Your task to perform on an android device: Open the map Image 0: 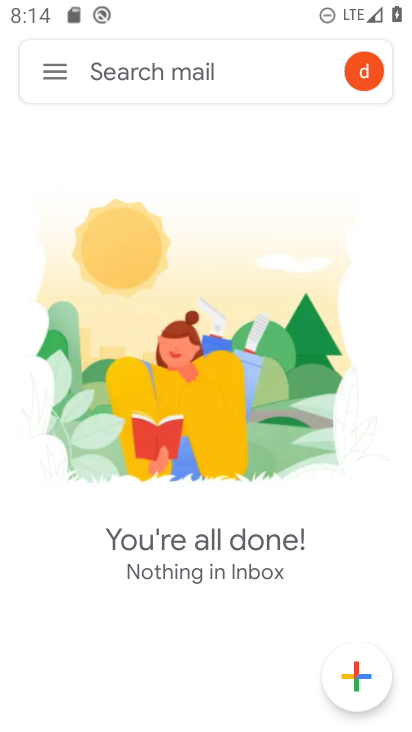
Step 0: press home button
Your task to perform on an android device: Open the map Image 1: 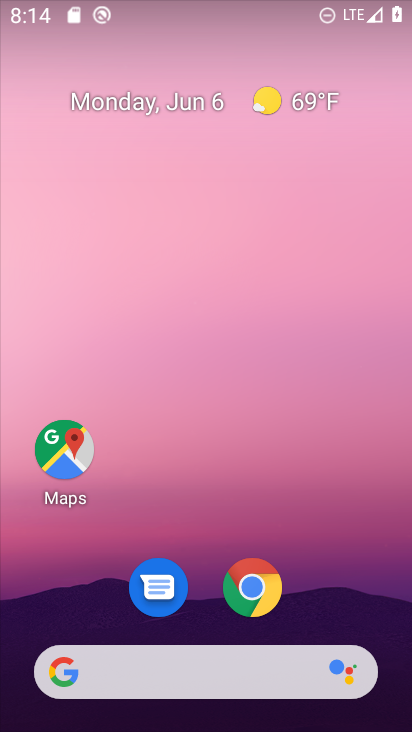
Step 1: click (49, 464)
Your task to perform on an android device: Open the map Image 2: 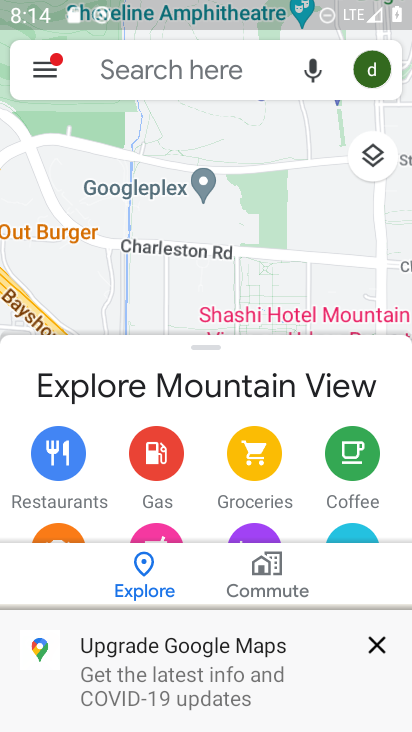
Step 2: task complete